Your task to perform on an android device: set an alarm Image 0: 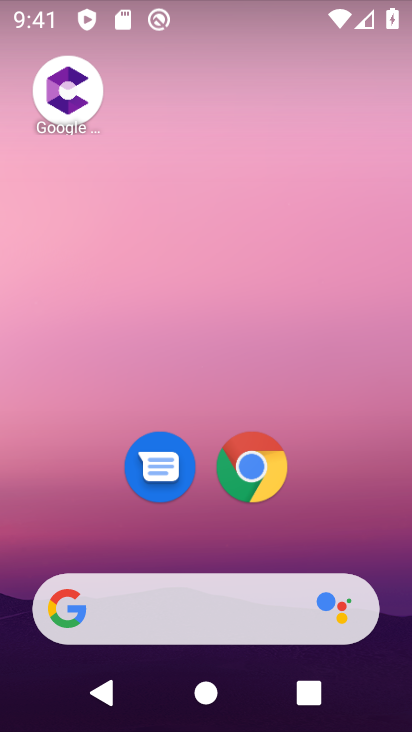
Step 0: drag from (374, 537) to (351, 180)
Your task to perform on an android device: set an alarm Image 1: 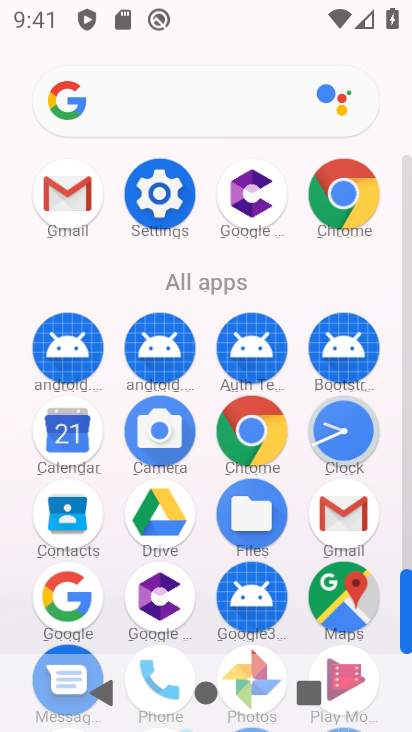
Step 1: click (349, 442)
Your task to perform on an android device: set an alarm Image 2: 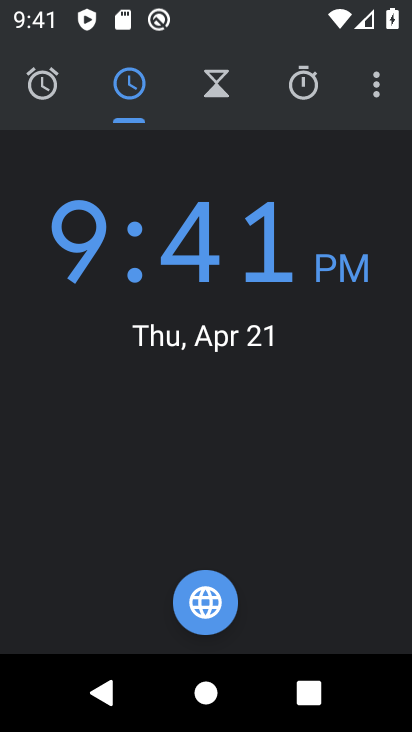
Step 2: click (51, 81)
Your task to perform on an android device: set an alarm Image 3: 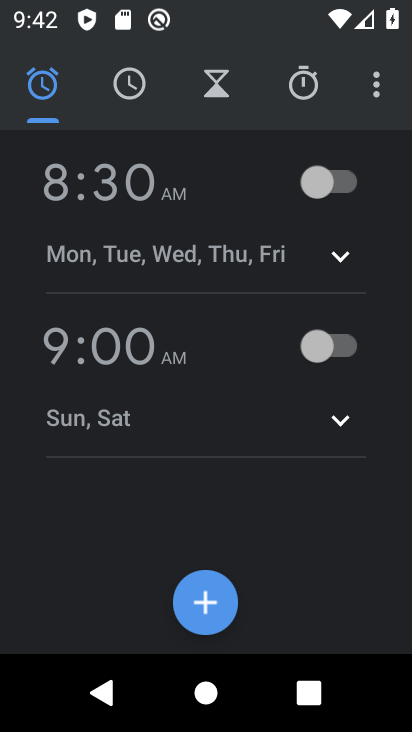
Step 3: click (193, 583)
Your task to perform on an android device: set an alarm Image 4: 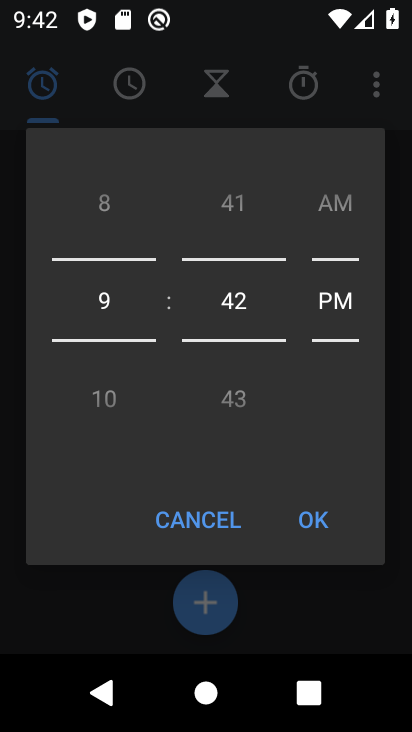
Step 4: click (297, 516)
Your task to perform on an android device: set an alarm Image 5: 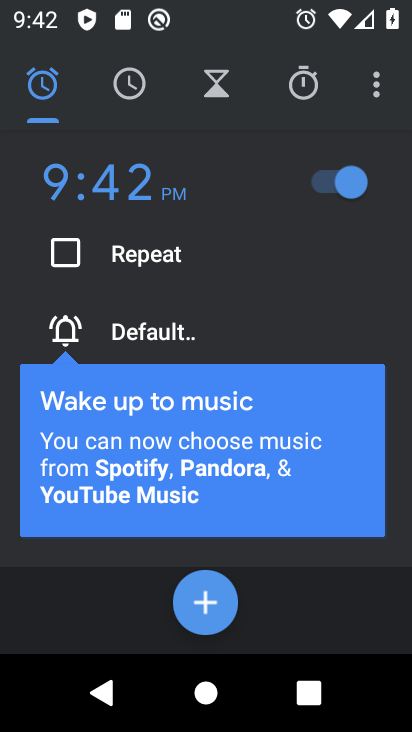
Step 5: task complete